Your task to perform on an android device: delete browsing data in the chrome app Image 0: 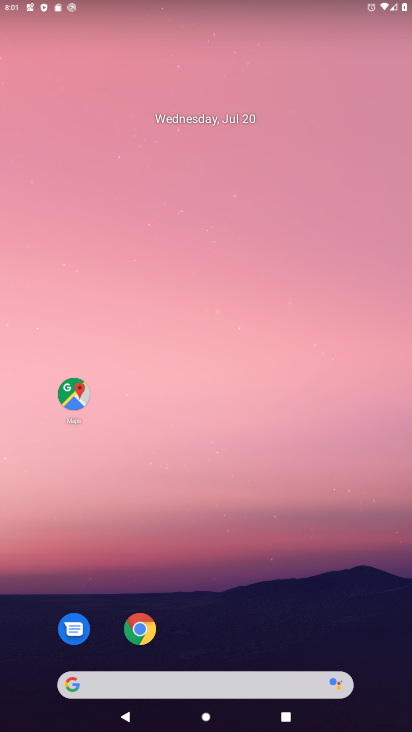
Step 0: click (140, 628)
Your task to perform on an android device: delete browsing data in the chrome app Image 1: 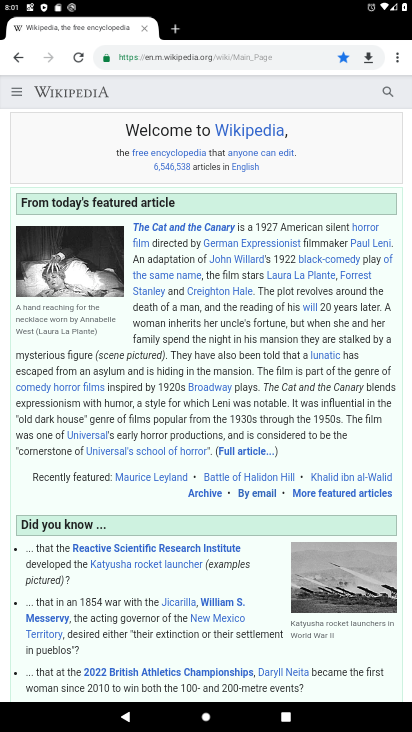
Step 1: click (397, 60)
Your task to perform on an android device: delete browsing data in the chrome app Image 2: 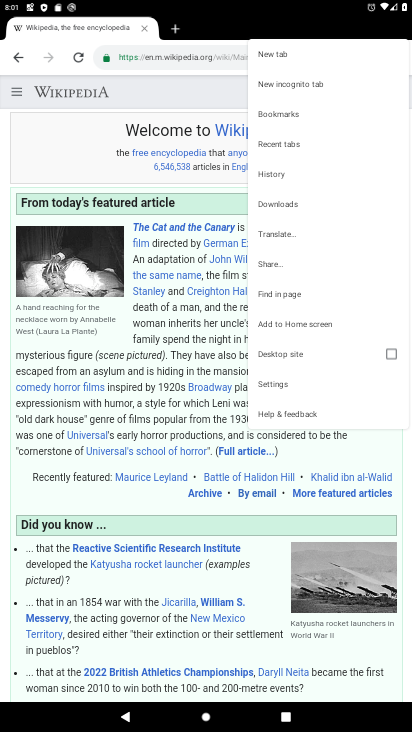
Step 2: click (268, 172)
Your task to perform on an android device: delete browsing data in the chrome app Image 3: 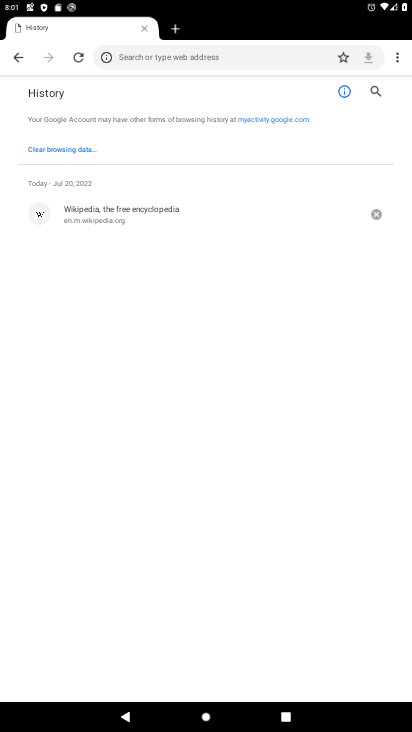
Step 3: click (50, 149)
Your task to perform on an android device: delete browsing data in the chrome app Image 4: 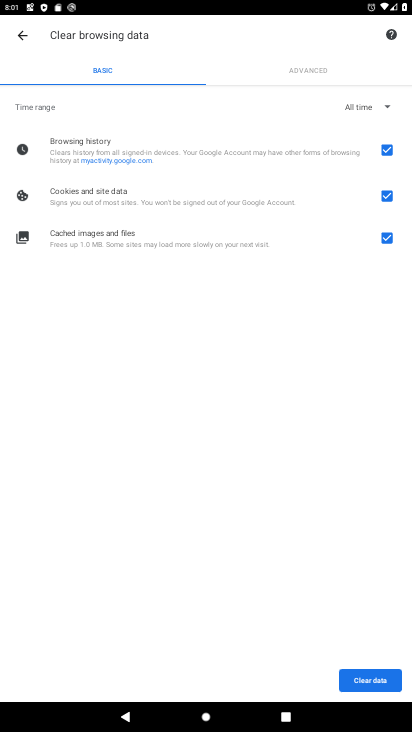
Step 4: click (352, 681)
Your task to perform on an android device: delete browsing data in the chrome app Image 5: 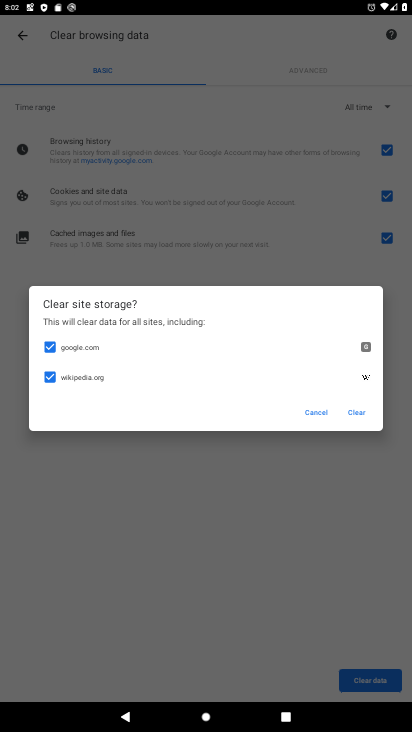
Step 5: click (353, 412)
Your task to perform on an android device: delete browsing data in the chrome app Image 6: 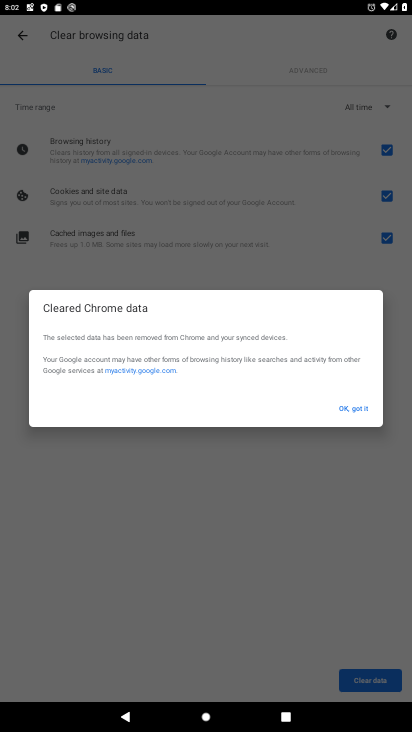
Step 6: click (348, 406)
Your task to perform on an android device: delete browsing data in the chrome app Image 7: 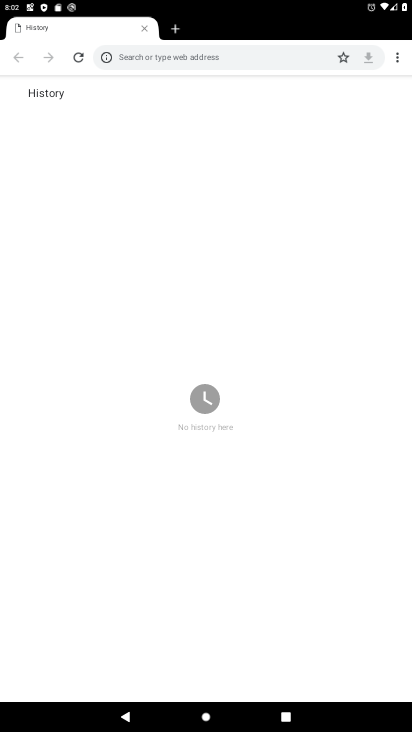
Step 7: task complete